Your task to perform on an android device: read, delete, or share a saved page in the chrome app Image 0: 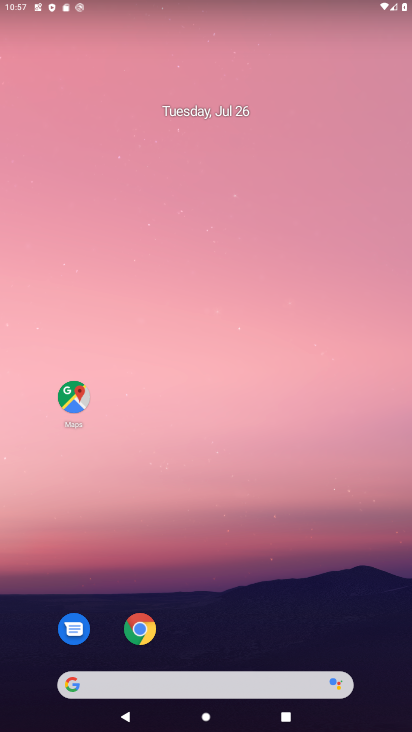
Step 0: click (144, 627)
Your task to perform on an android device: read, delete, or share a saved page in the chrome app Image 1: 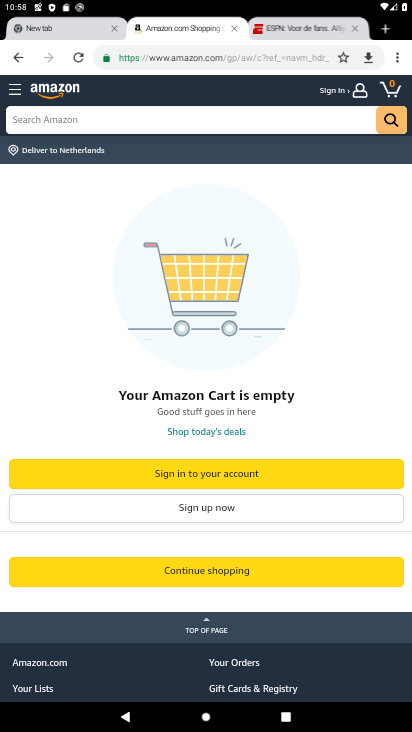
Step 1: click (396, 62)
Your task to perform on an android device: read, delete, or share a saved page in the chrome app Image 2: 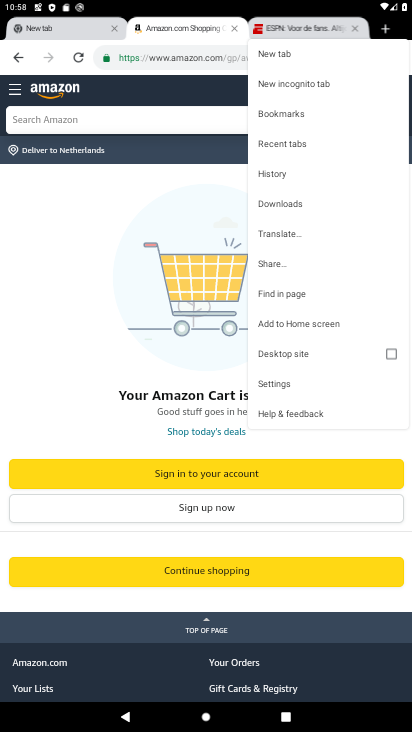
Step 2: click (279, 200)
Your task to perform on an android device: read, delete, or share a saved page in the chrome app Image 3: 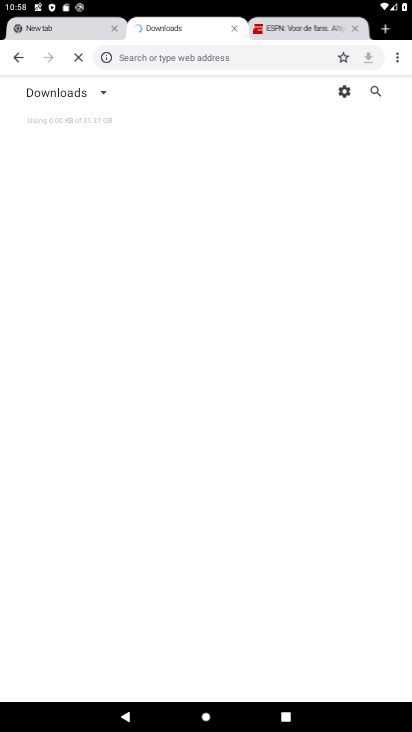
Step 3: task complete